Your task to perform on an android device: turn vacation reply on in the gmail app Image 0: 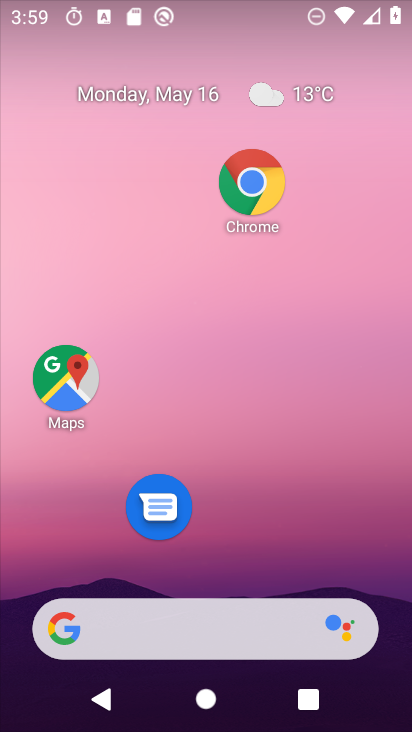
Step 0: drag from (240, 537) to (211, 192)
Your task to perform on an android device: turn vacation reply on in the gmail app Image 1: 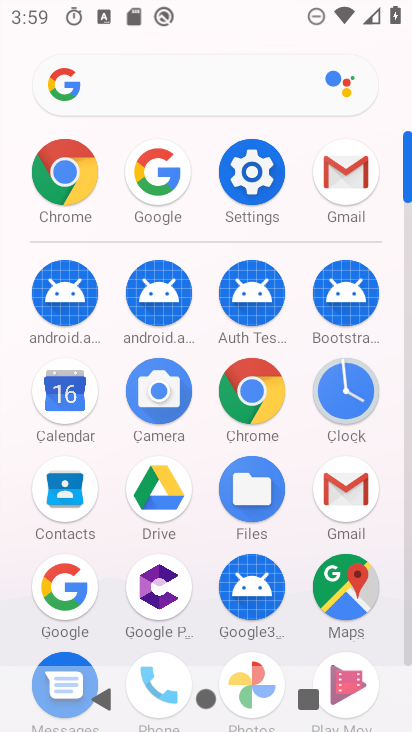
Step 1: click (348, 506)
Your task to perform on an android device: turn vacation reply on in the gmail app Image 2: 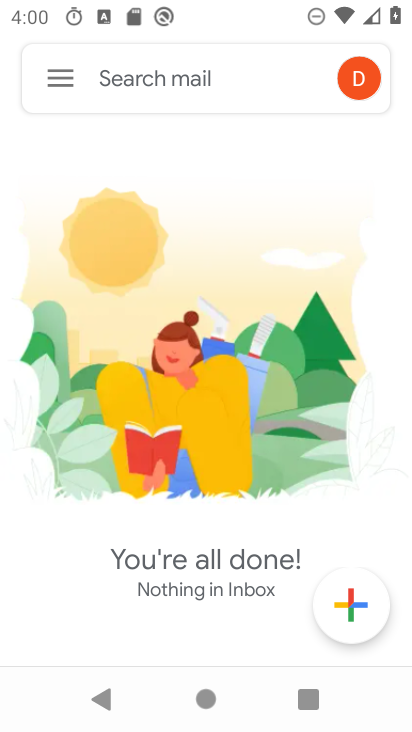
Step 2: click (65, 84)
Your task to perform on an android device: turn vacation reply on in the gmail app Image 3: 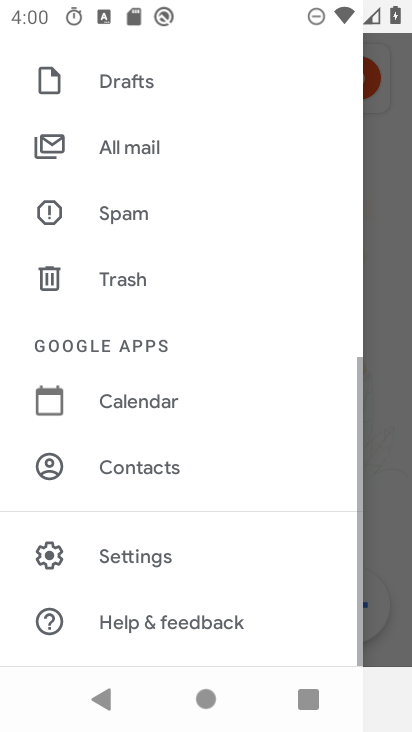
Step 3: click (139, 558)
Your task to perform on an android device: turn vacation reply on in the gmail app Image 4: 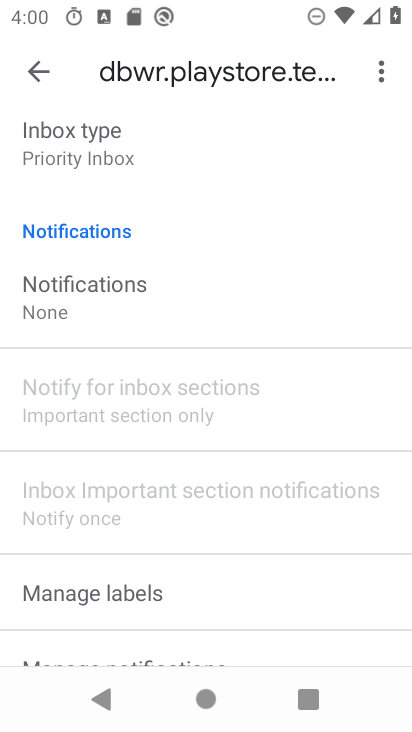
Step 4: drag from (189, 559) to (234, 228)
Your task to perform on an android device: turn vacation reply on in the gmail app Image 5: 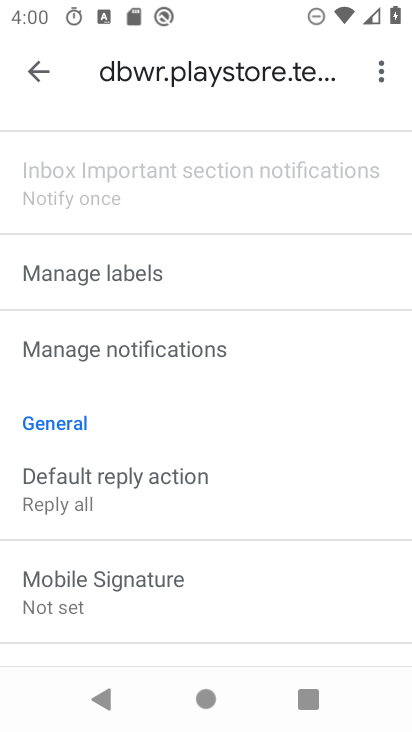
Step 5: drag from (202, 538) to (265, 234)
Your task to perform on an android device: turn vacation reply on in the gmail app Image 6: 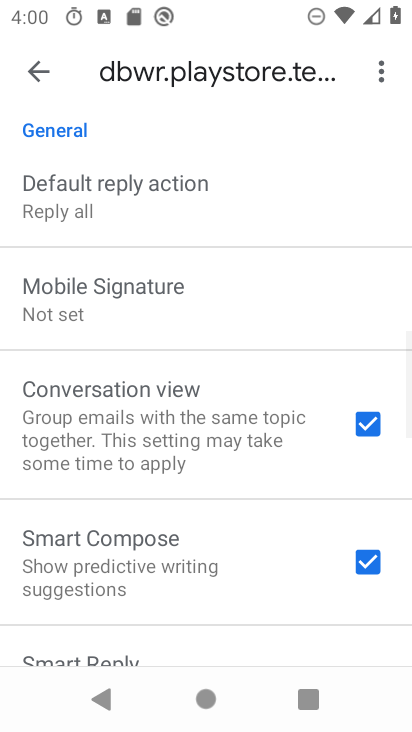
Step 6: drag from (211, 512) to (241, 190)
Your task to perform on an android device: turn vacation reply on in the gmail app Image 7: 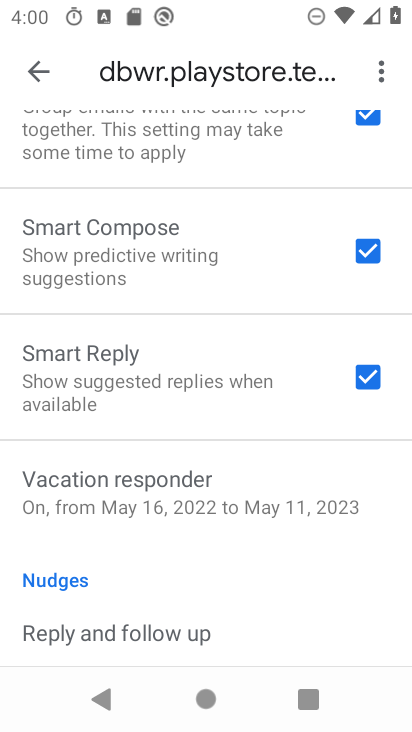
Step 7: click (191, 504)
Your task to perform on an android device: turn vacation reply on in the gmail app Image 8: 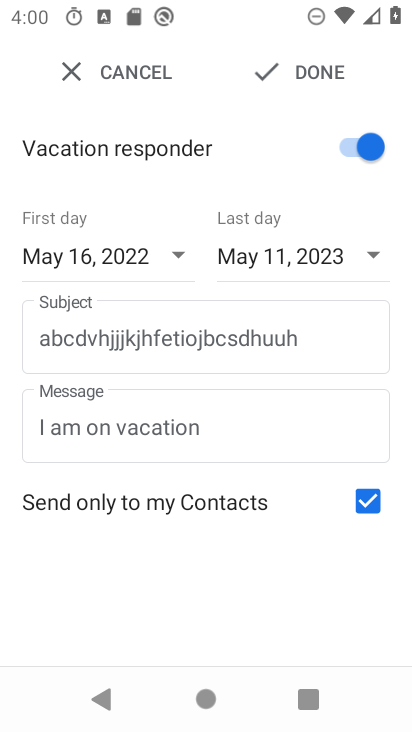
Step 8: click (306, 72)
Your task to perform on an android device: turn vacation reply on in the gmail app Image 9: 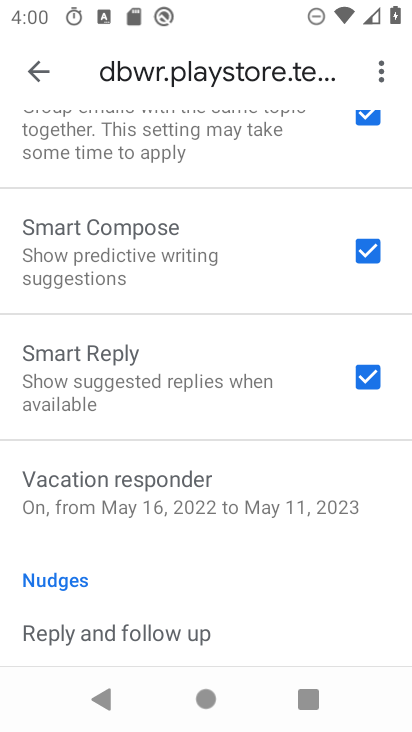
Step 9: task complete